Your task to perform on an android device: set the timer Image 0: 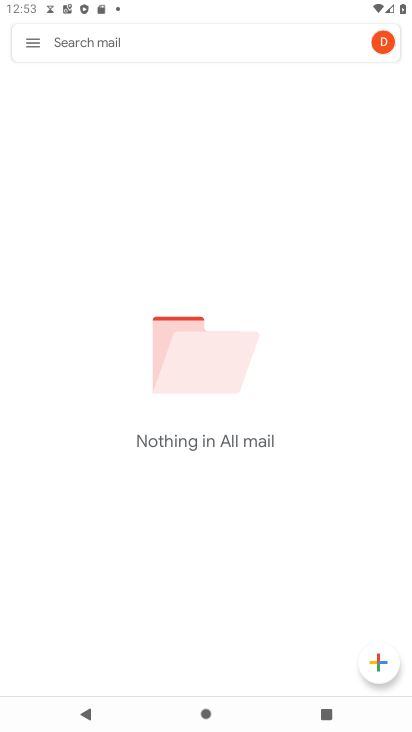
Step 0: press back button
Your task to perform on an android device: set the timer Image 1: 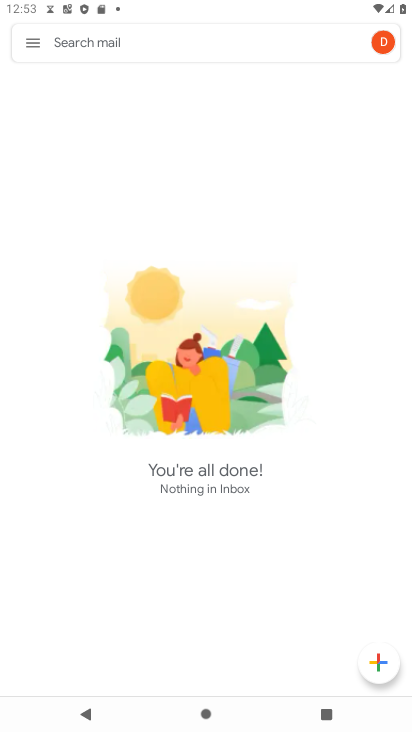
Step 1: press back button
Your task to perform on an android device: set the timer Image 2: 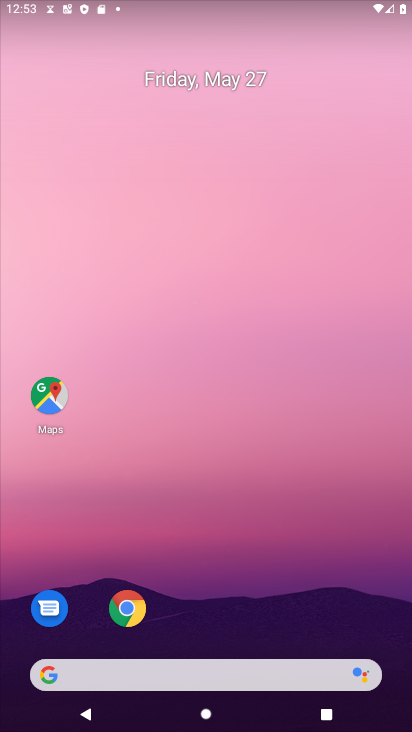
Step 2: drag from (283, 621) to (348, 22)
Your task to perform on an android device: set the timer Image 3: 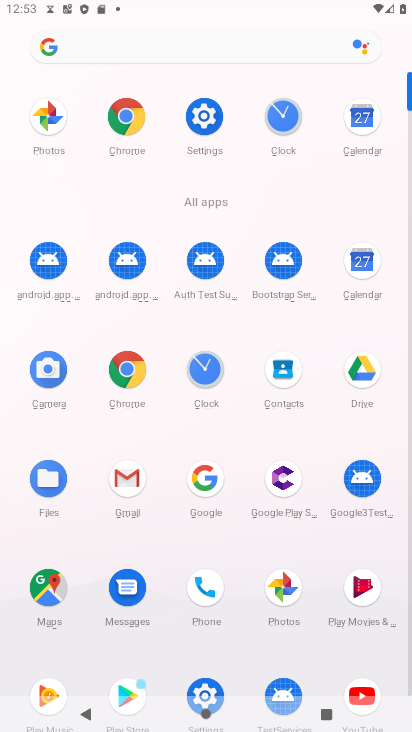
Step 3: click (204, 374)
Your task to perform on an android device: set the timer Image 4: 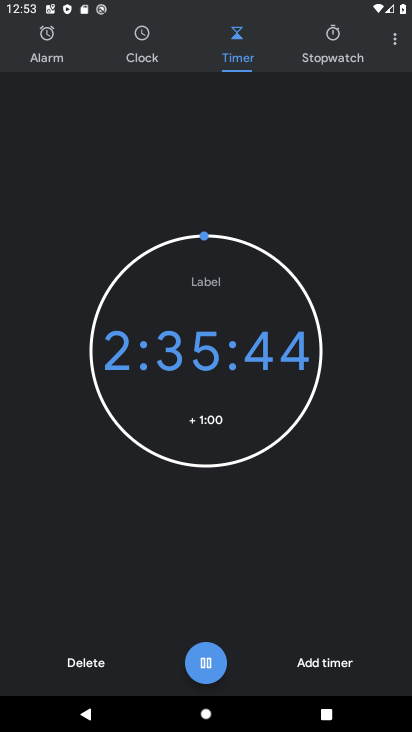
Step 4: task complete